Your task to perform on an android device: Check the weather Image 0: 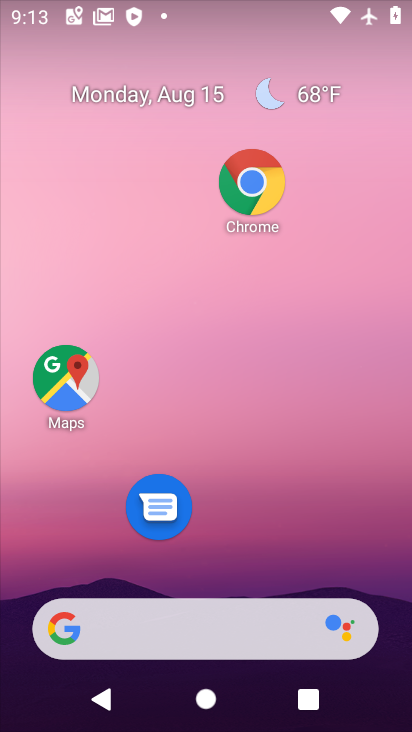
Step 0: click (224, 616)
Your task to perform on an android device: Check the weather Image 1: 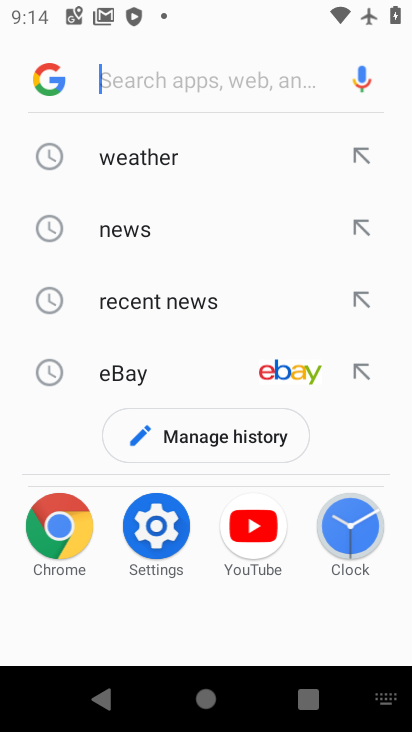
Step 1: click (118, 155)
Your task to perform on an android device: Check the weather Image 2: 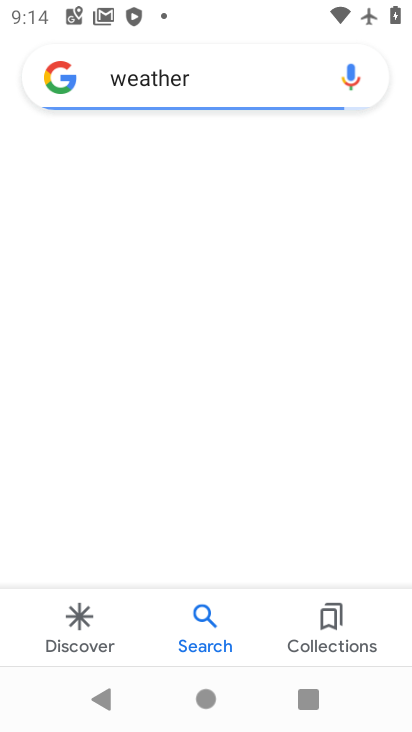
Step 2: task complete